Your task to perform on an android device: Go to Amazon Image 0: 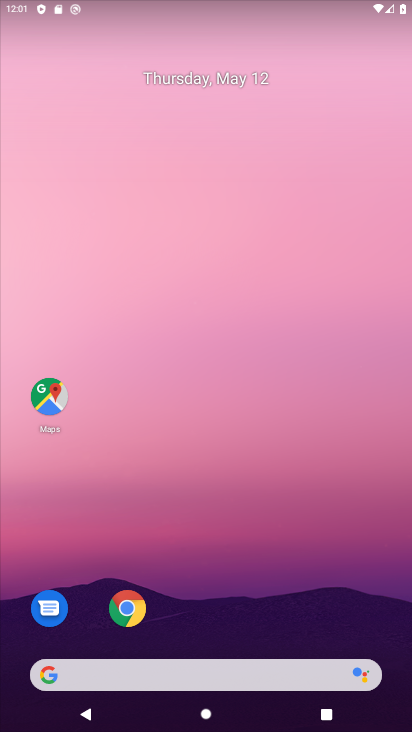
Step 0: click (127, 600)
Your task to perform on an android device: Go to Amazon Image 1: 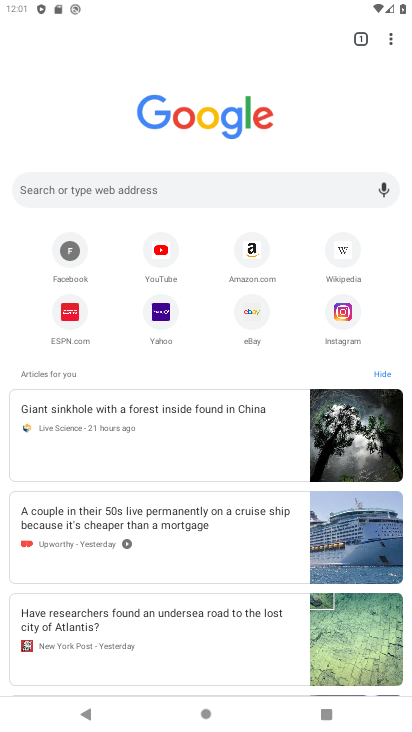
Step 1: click (252, 257)
Your task to perform on an android device: Go to Amazon Image 2: 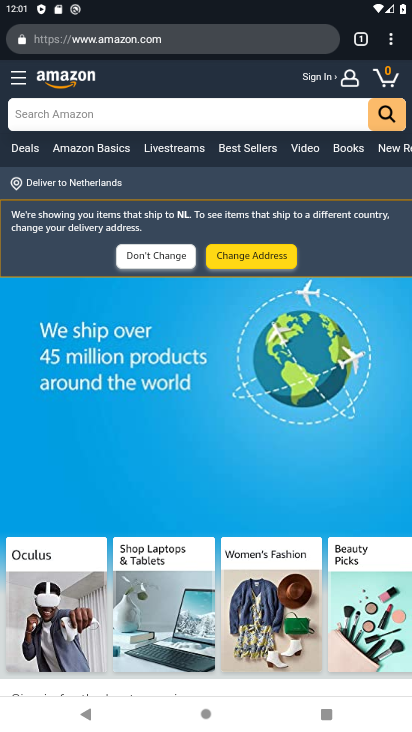
Step 2: task complete